Your task to perform on an android device: Search for Italian restaurants on Maps Image 0: 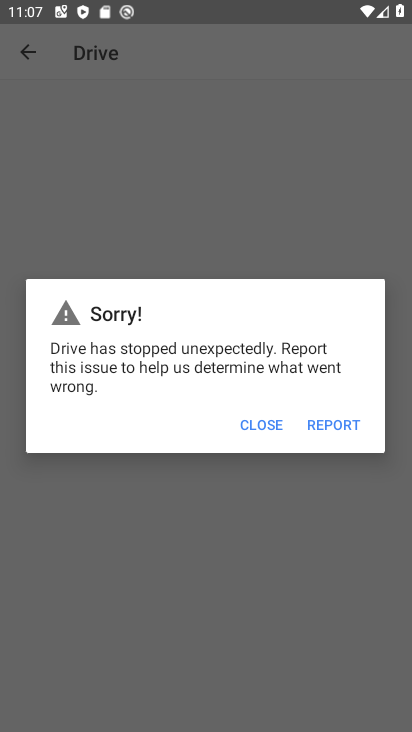
Step 0: press home button
Your task to perform on an android device: Search for Italian restaurants on Maps Image 1: 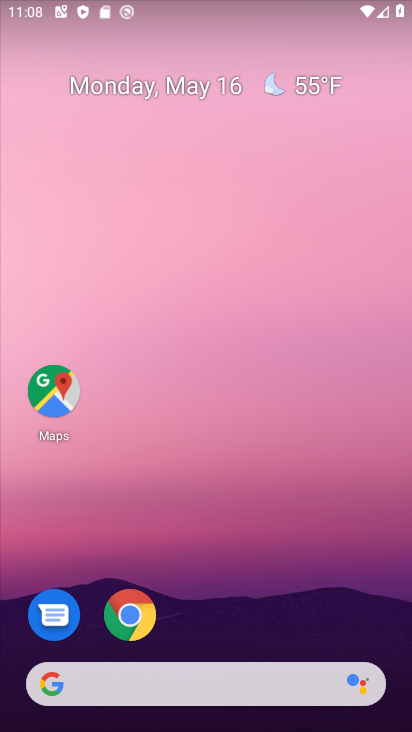
Step 1: click (61, 383)
Your task to perform on an android device: Search for Italian restaurants on Maps Image 2: 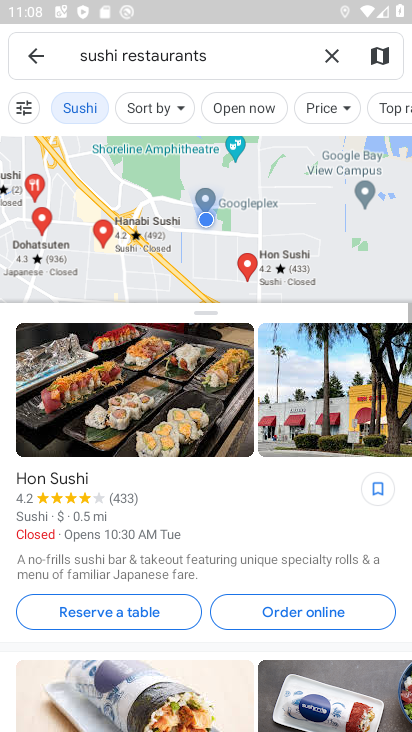
Step 2: click (337, 53)
Your task to perform on an android device: Search for Italian restaurants on Maps Image 3: 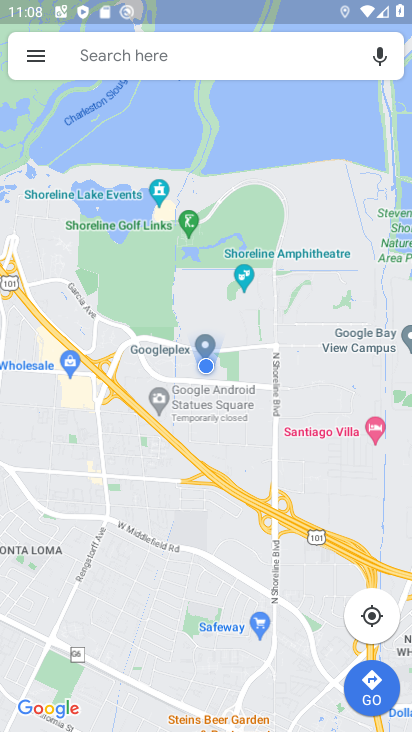
Step 3: click (111, 60)
Your task to perform on an android device: Search for Italian restaurants on Maps Image 4: 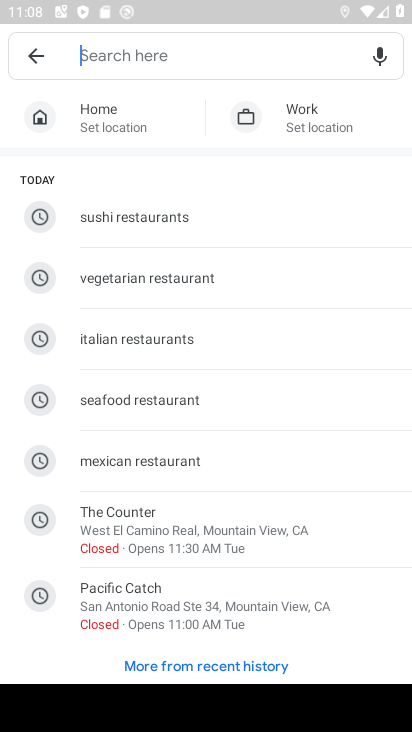
Step 4: type " Italian restaurants "
Your task to perform on an android device: Search for Italian restaurants on Maps Image 5: 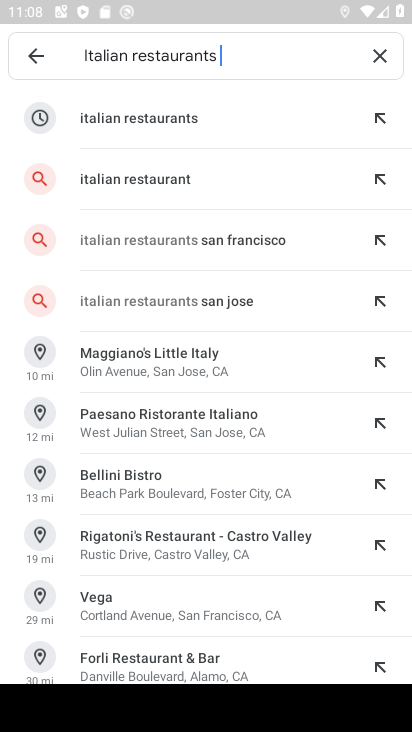
Step 5: click (145, 115)
Your task to perform on an android device: Search for Italian restaurants on Maps Image 6: 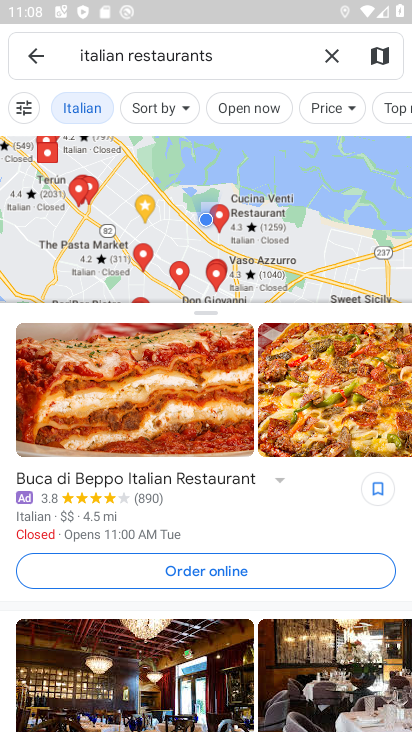
Step 6: task complete